Your task to perform on an android device: Open wifi settings Image 0: 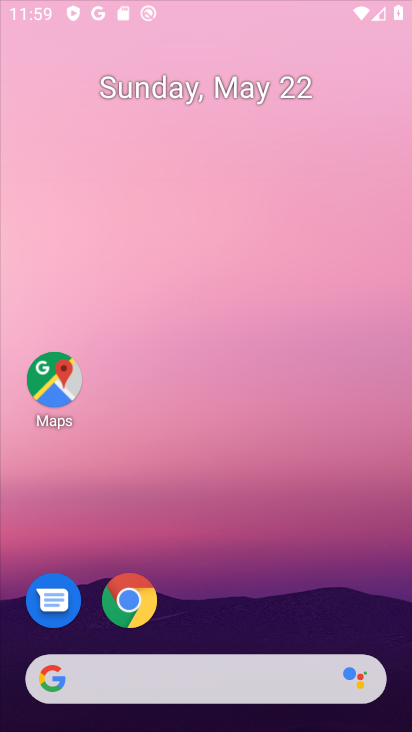
Step 0: drag from (342, 579) to (315, 14)
Your task to perform on an android device: Open wifi settings Image 1: 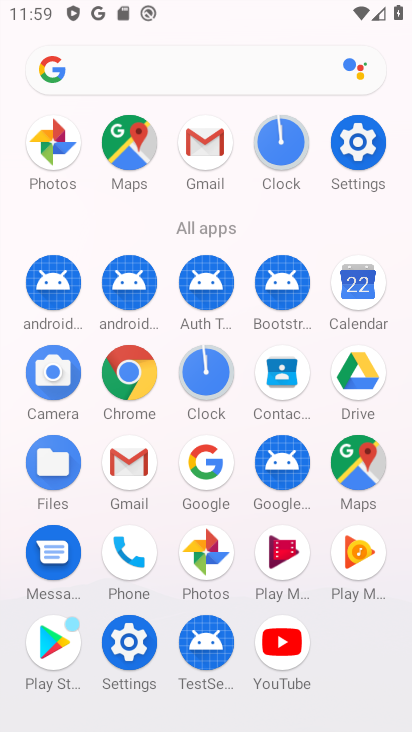
Step 1: click (370, 152)
Your task to perform on an android device: Open wifi settings Image 2: 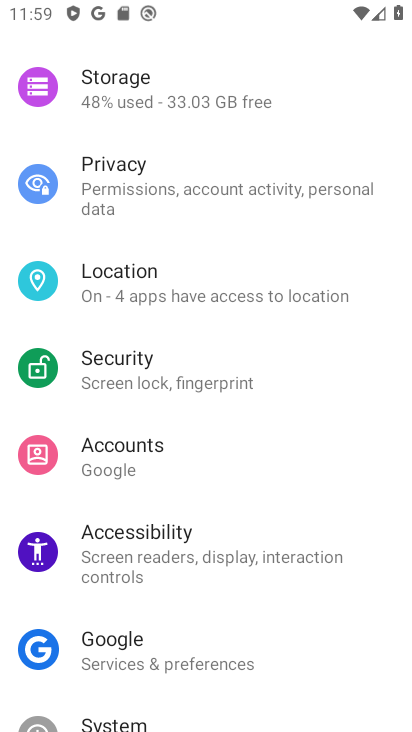
Step 2: task complete